Your task to perform on an android device: turn on javascript in the chrome app Image 0: 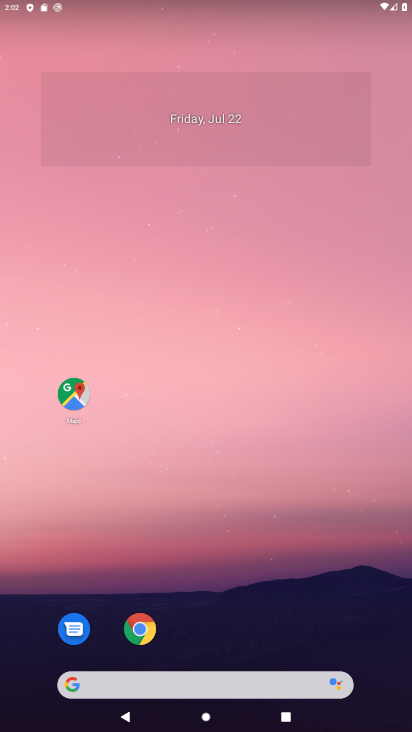
Step 0: drag from (223, 261) to (213, 165)
Your task to perform on an android device: turn on javascript in the chrome app Image 1: 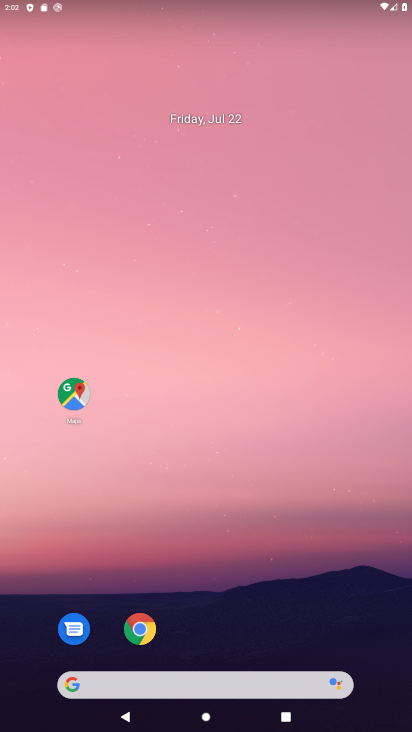
Step 1: drag from (235, 644) to (205, 149)
Your task to perform on an android device: turn on javascript in the chrome app Image 2: 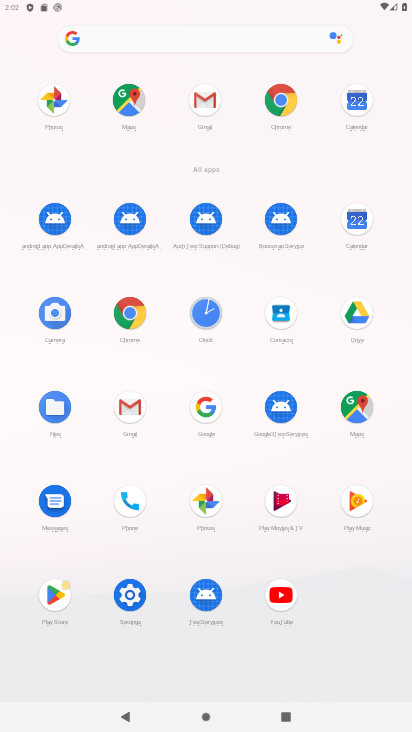
Step 2: click (284, 101)
Your task to perform on an android device: turn on javascript in the chrome app Image 3: 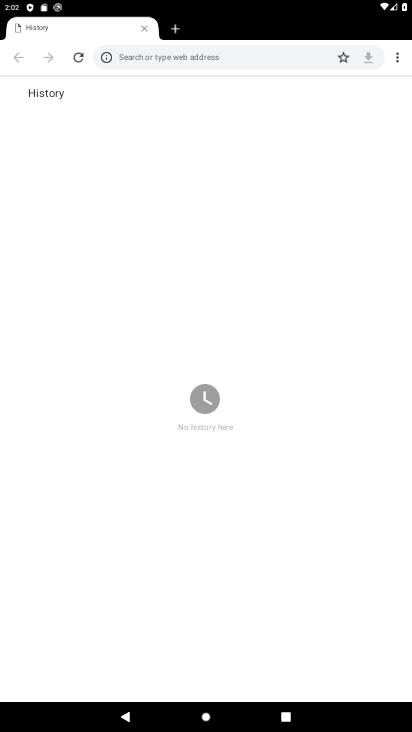
Step 3: drag from (399, 58) to (283, 300)
Your task to perform on an android device: turn on javascript in the chrome app Image 4: 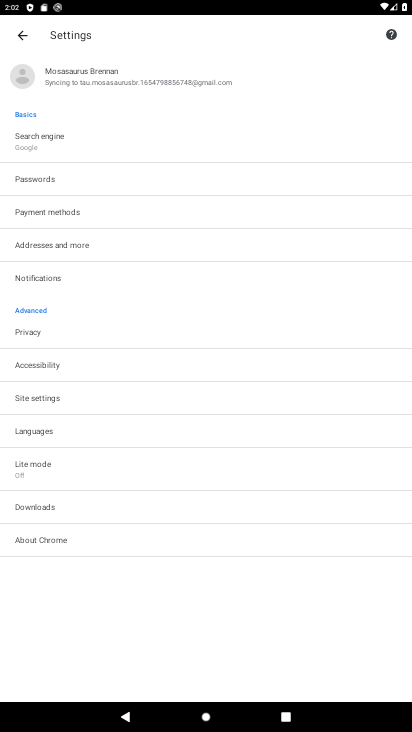
Step 4: click (39, 394)
Your task to perform on an android device: turn on javascript in the chrome app Image 5: 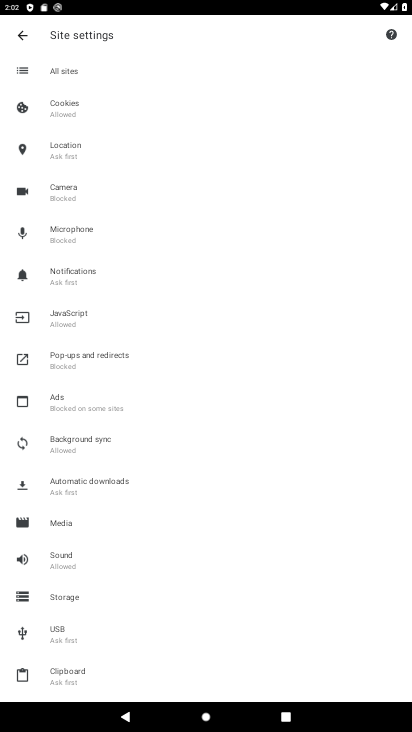
Step 5: click (67, 321)
Your task to perform on an android device: turn on javascript in the chrome app Image 6: 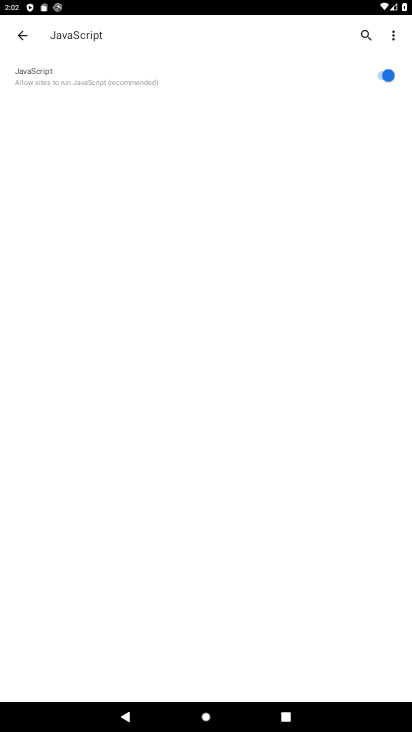
Step 6: task complete